Your task to perform on an android device: turn on notifications settings in the gmail app Image 0: 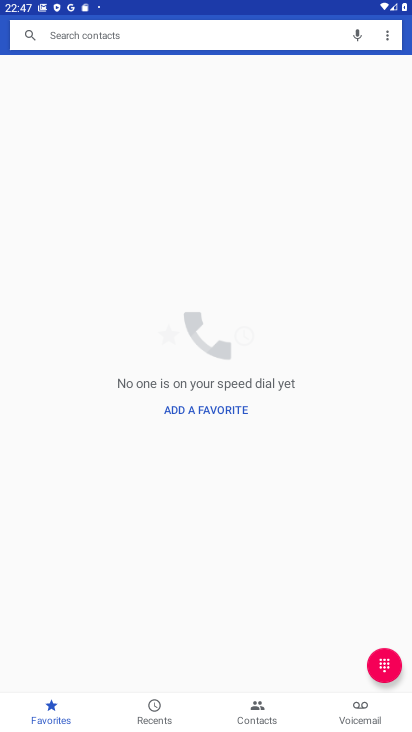
Step 0: press home button
Your task to perform on an android device: turn on notifications settings in the gmail app Image 1: 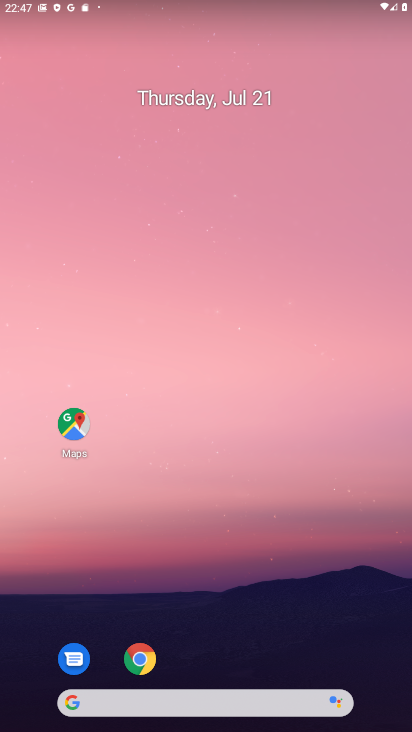
Step 1: drag from (192, 696) to (145, 231)
Your task to perform on an android device: turn on notifications settings in the gmail app Image 2: 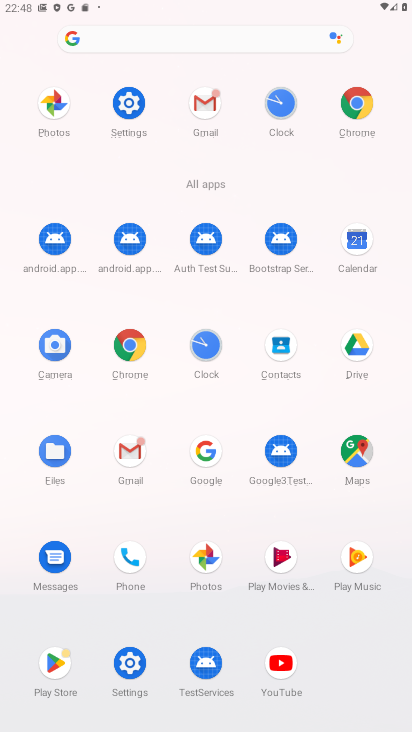
Step 2: click (204, 102)
Your task to perform on an android device: turn on notifications settings in the gmail app Image 3: 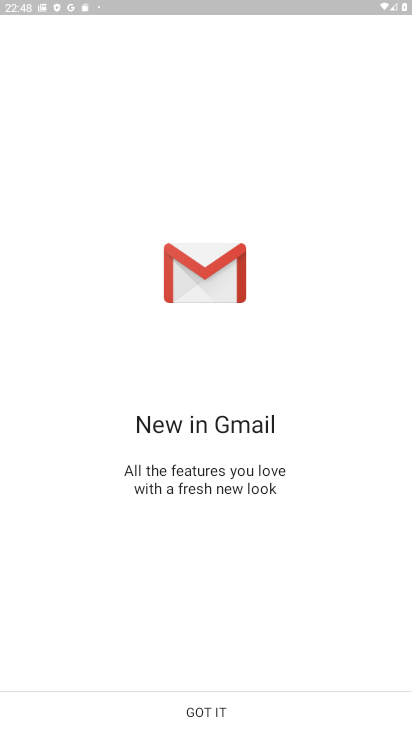
Step 3: click (205, 708)
Your task to perform on an android device: turn on notifications settings in the gmail app Image 4: 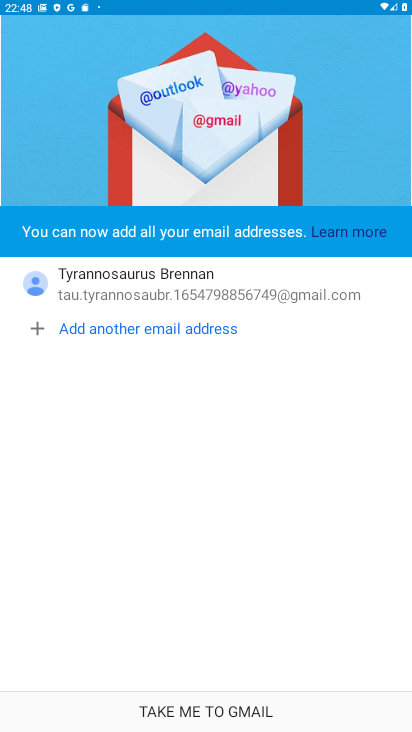
Step 4: click (205, 708)
Your task to perform on an android device: turn on notifications settings in the gmail app Image 5: 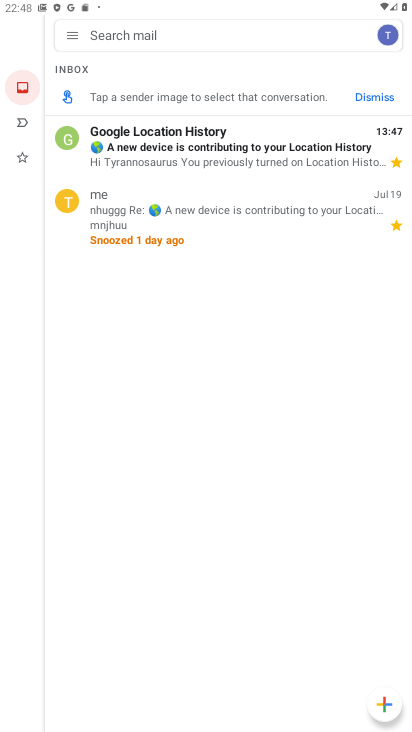
Step 5: click (68, 39)
Your task to perform on an android device: turn on notifications settings in the gmail app Image 6: 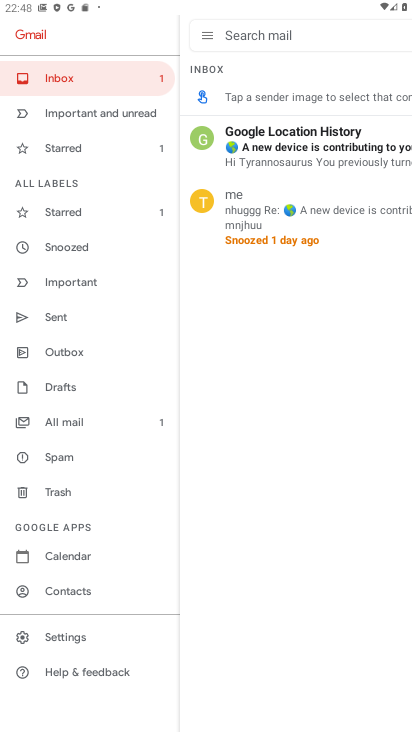
Step 6: click (68, 639)
Your task to perform on an android device: turn on notifications settings in the gmail app Image 7: 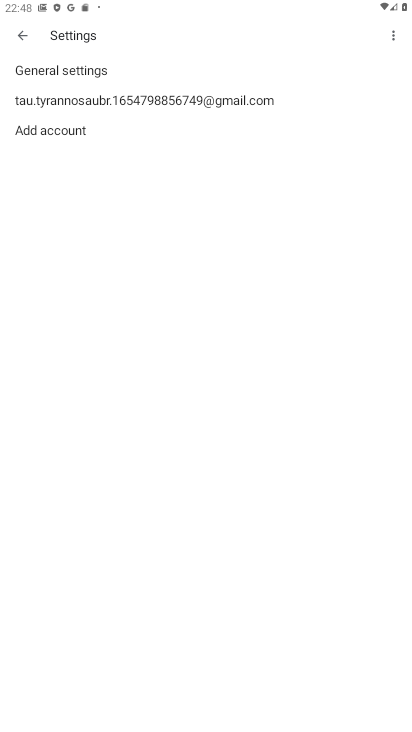
Step 7: click (186, 101)
Your task to perform on an android device: turn on notifications settings in the gmail app Image 8: 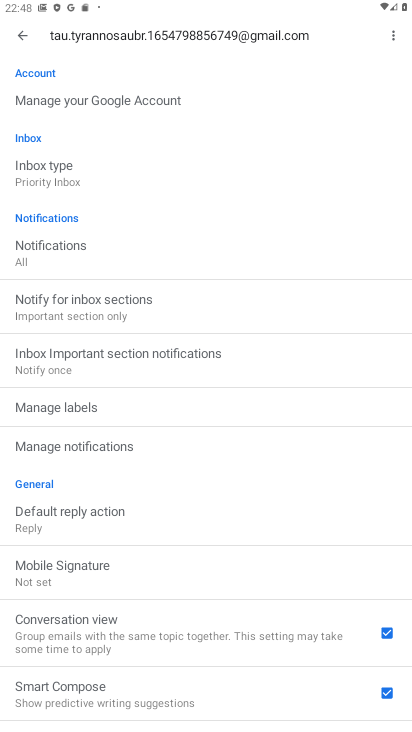
Step 8: click (77, 448)
Your task to perform on an android device: turn on notifications settings in the gmail app Image 9: 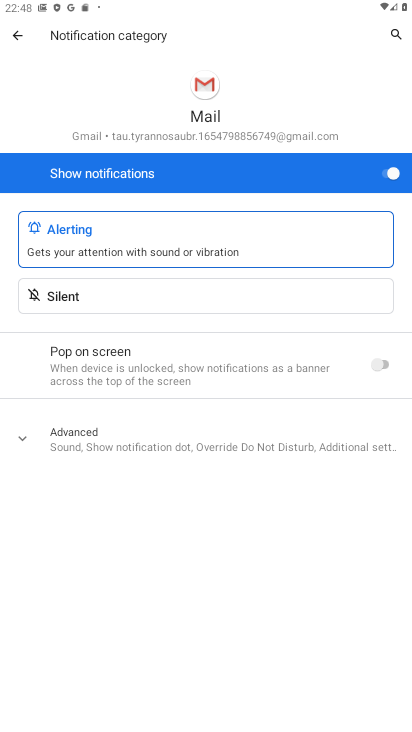
Step 9: task complete